Your task to perform on an android device: Do I have any events this weekend? Image 0: 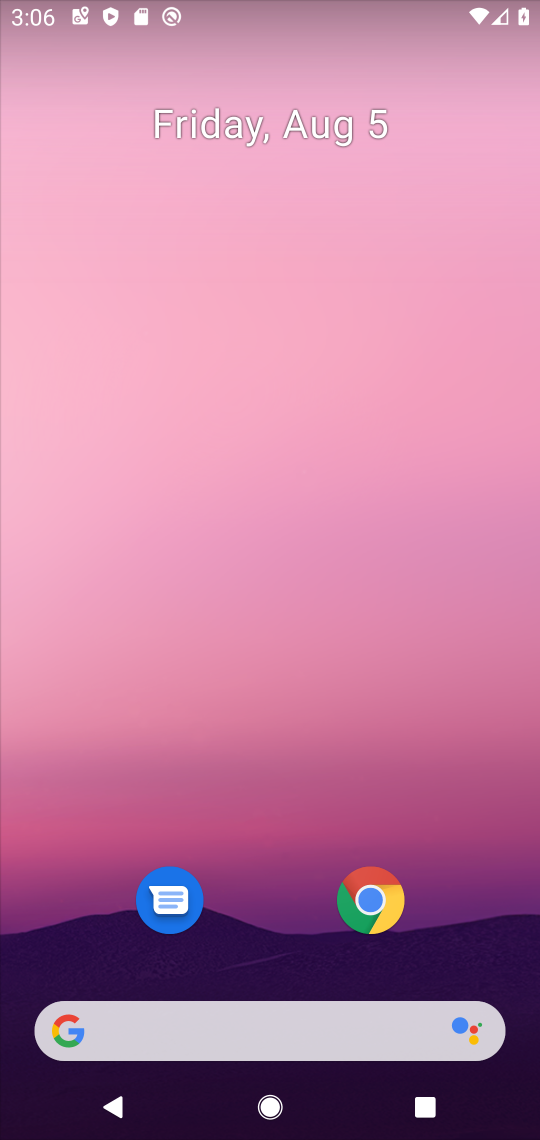
Step 0: drag from (270, 778) to (327, 99)
Your task to perform on an android device: Do I have any events this weekend? Image 1: 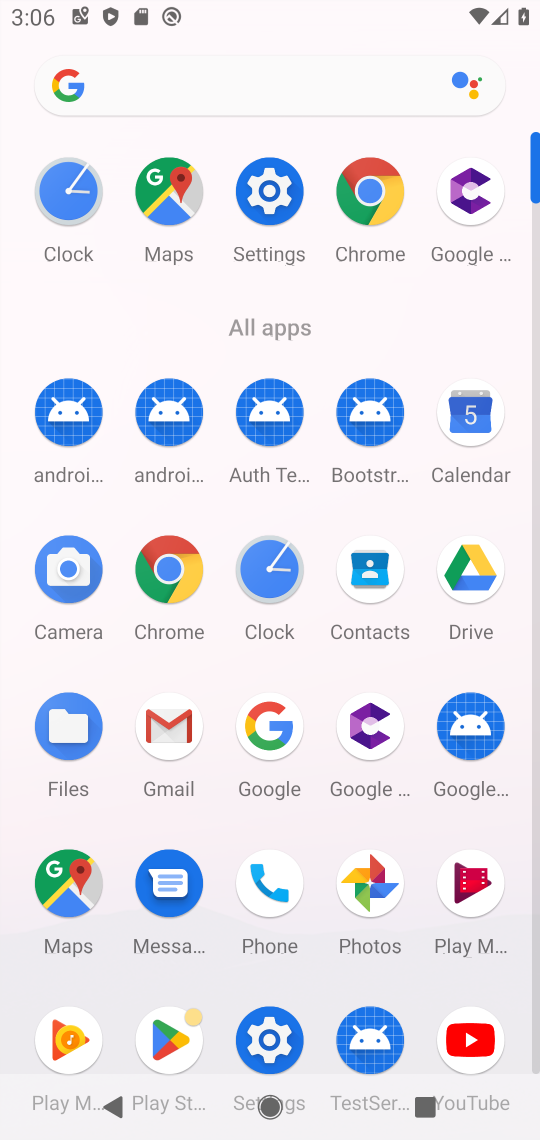
Step 1: click (493, 418)
Your task to perform on an android device: Do I have any events this weekend? Image 2: 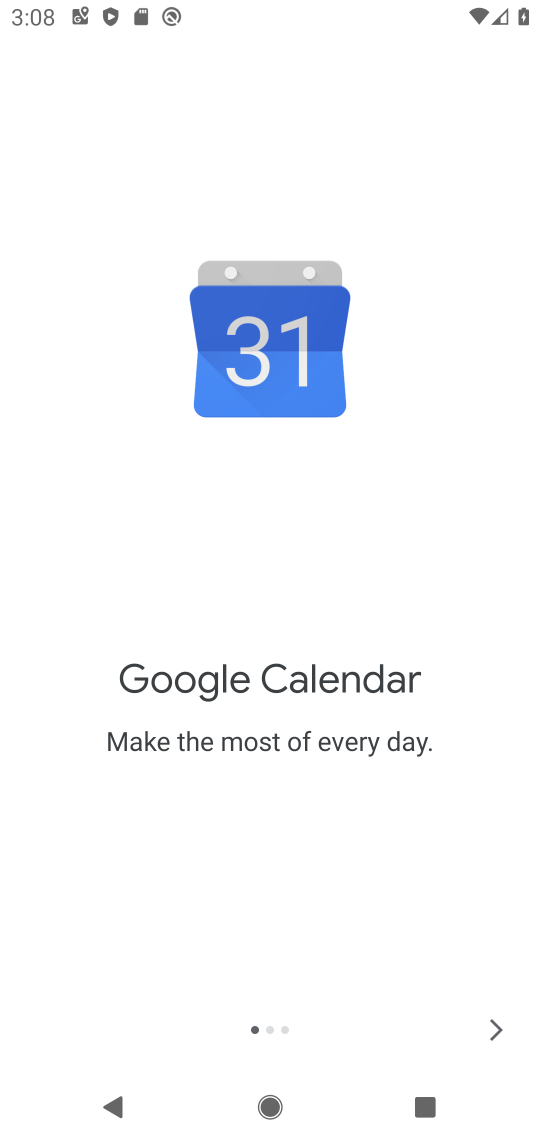
Step 2: press back button
Your task to perform on an android device: Do I have any events this weekend? Image 3: 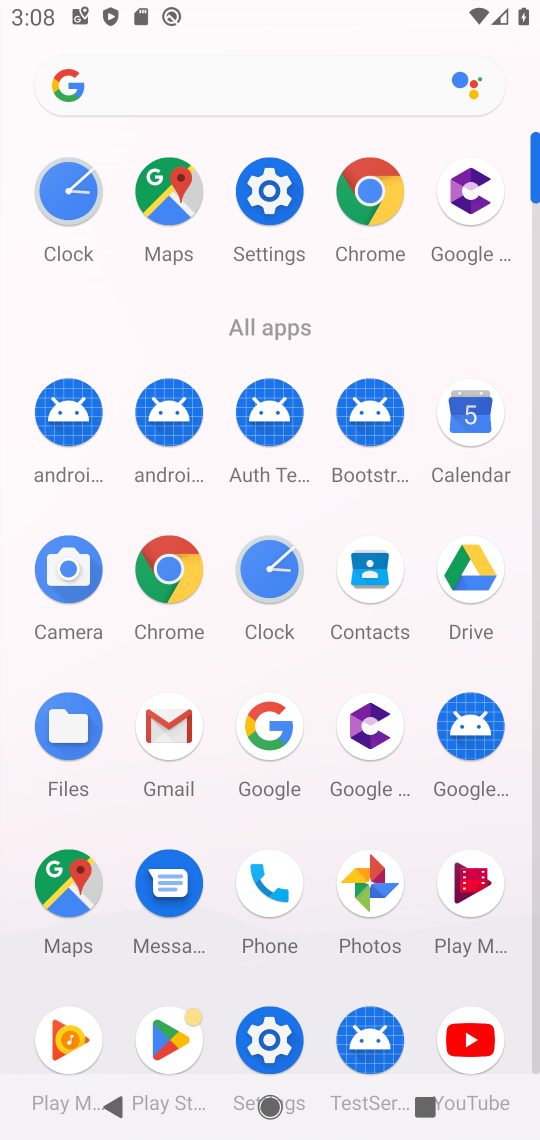
Step 3: press back button
Your task to perform on an android device: Do I have any events this weekend? Image 4: 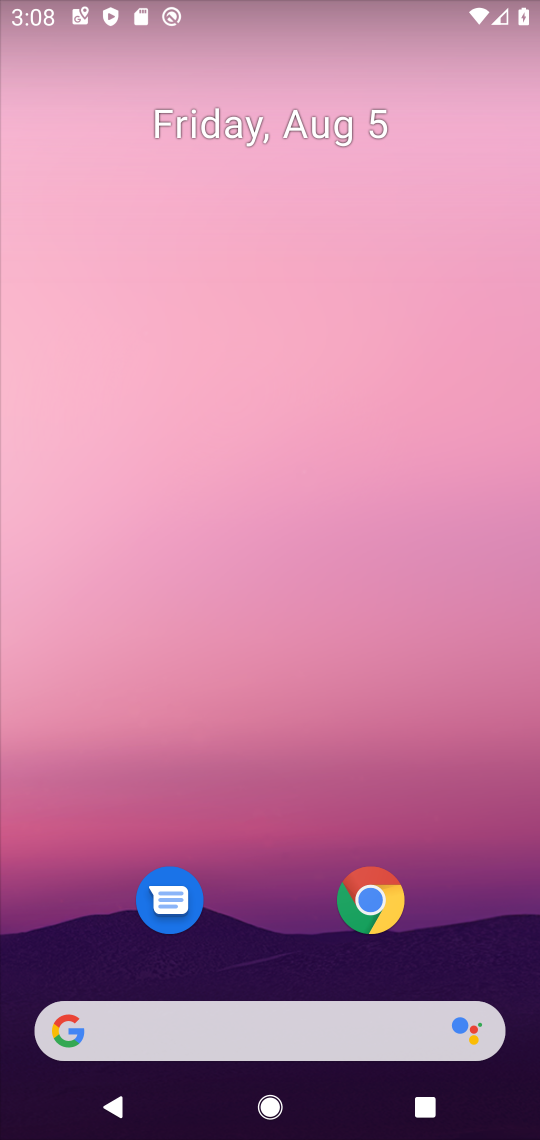
Step 4: drag from (288, 856) to (360, 139)
Your task to perform on an android device: Do I have any events this weekend? Image 5: 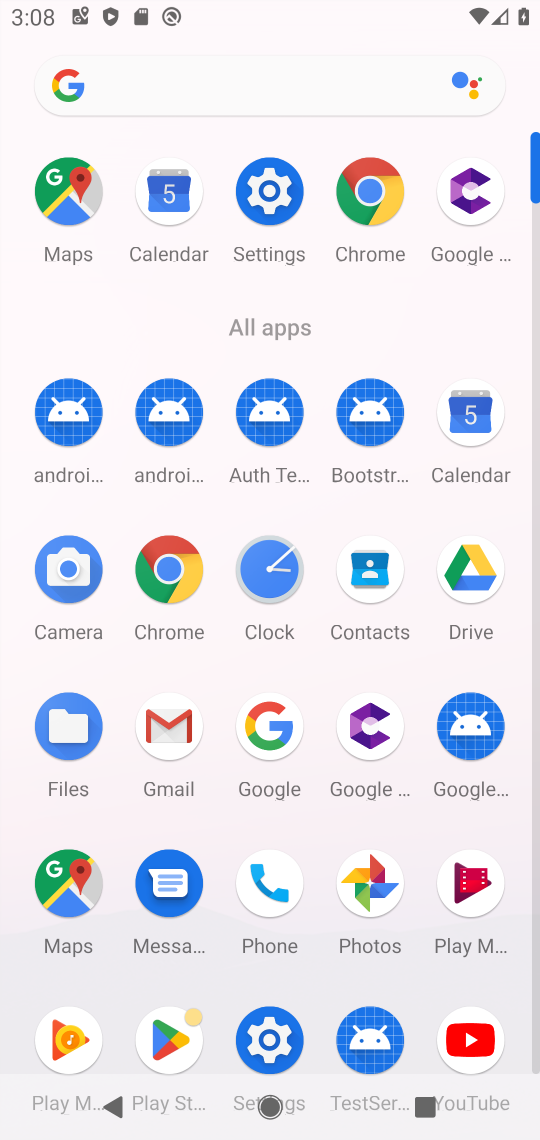
Step 5: click (467, 408)
Your task to perform on an android device: Do I have any events this weekend? Image 6: 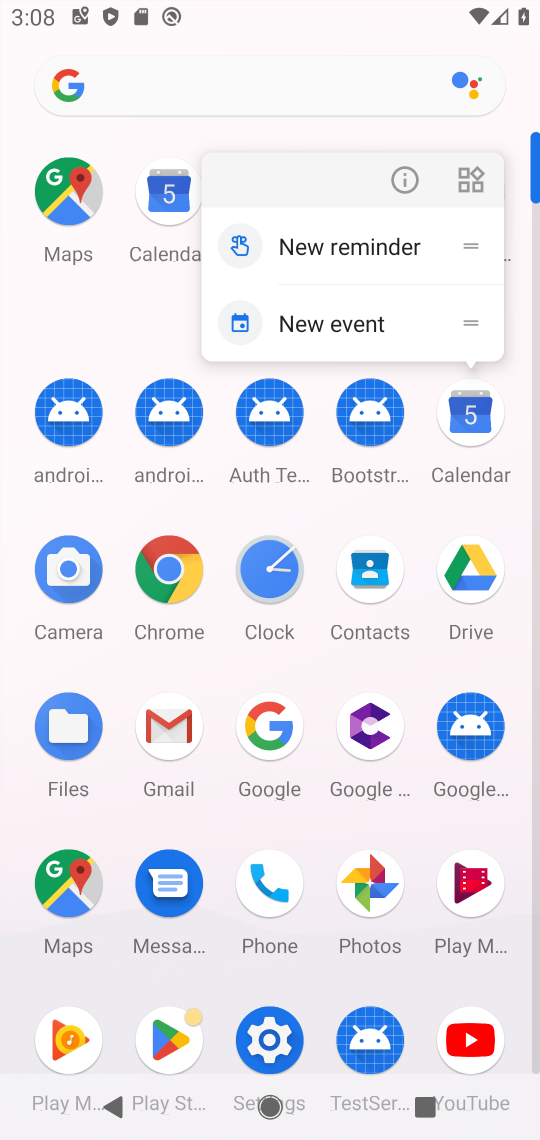
Step 6: click (488, 416)
Your task to perform on an android device: Do I have any events this weekend? Image 7: 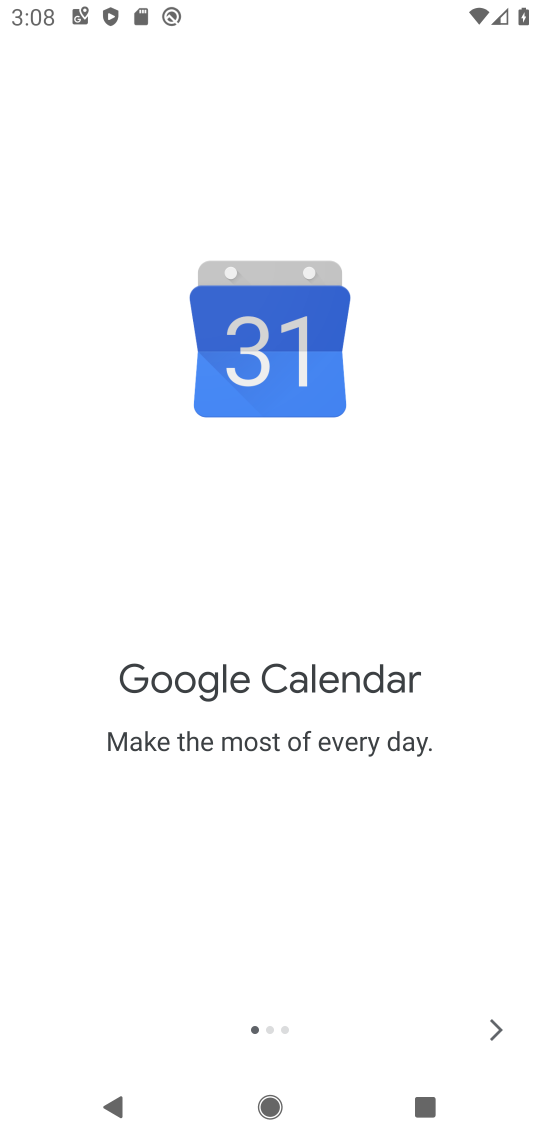
Step 7: click (518, 1006)
Your task to perform on an android device: Do I have any events this weekend? Image 8: 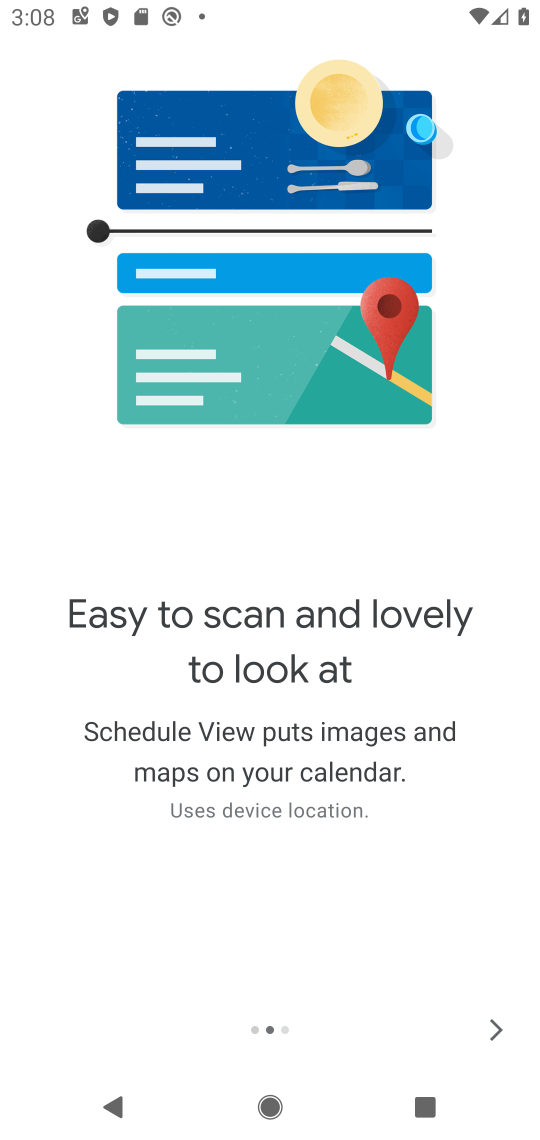
Step 8: click (509, 1008)
Your task to perform on an android device: Do I have any events this weekend? Image 9: 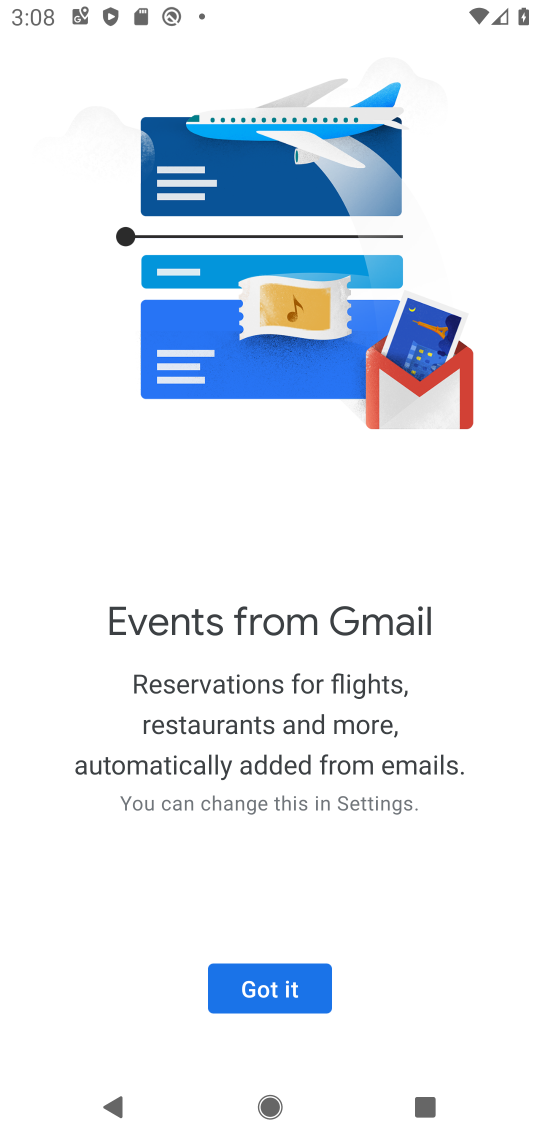
Step 9: click (264, 988)
Your task to perform on an android device: Do I have any events this weekend? Image 10: 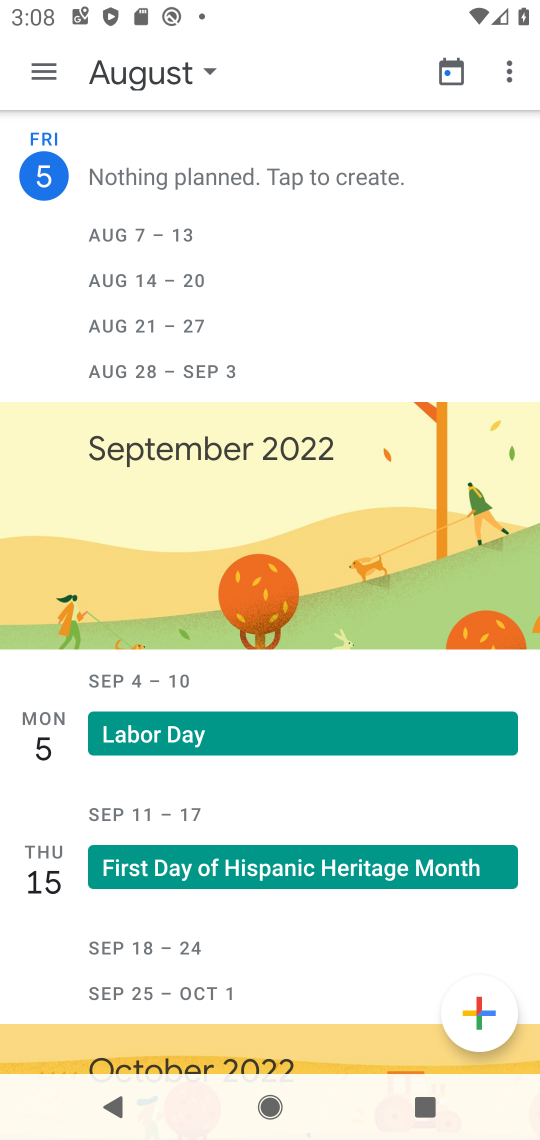
Step 10: click (176, 54)
Your task to perform on an android device: Do I have any events this weekend? Image 11: 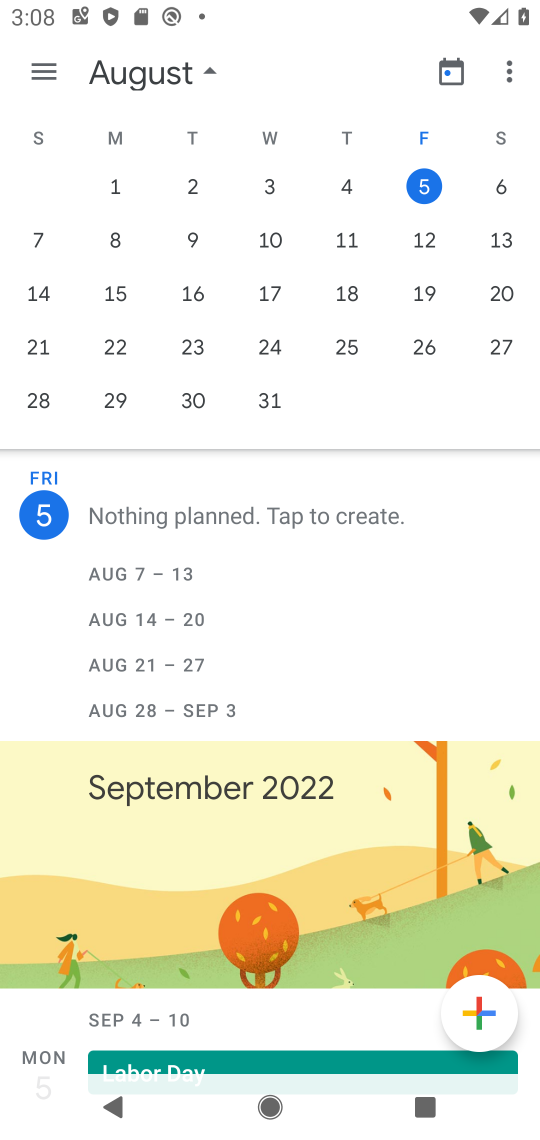
Step 11: click (507, 187)
Your task to perform on an android device: Do I have any events this weekend? Image 12: 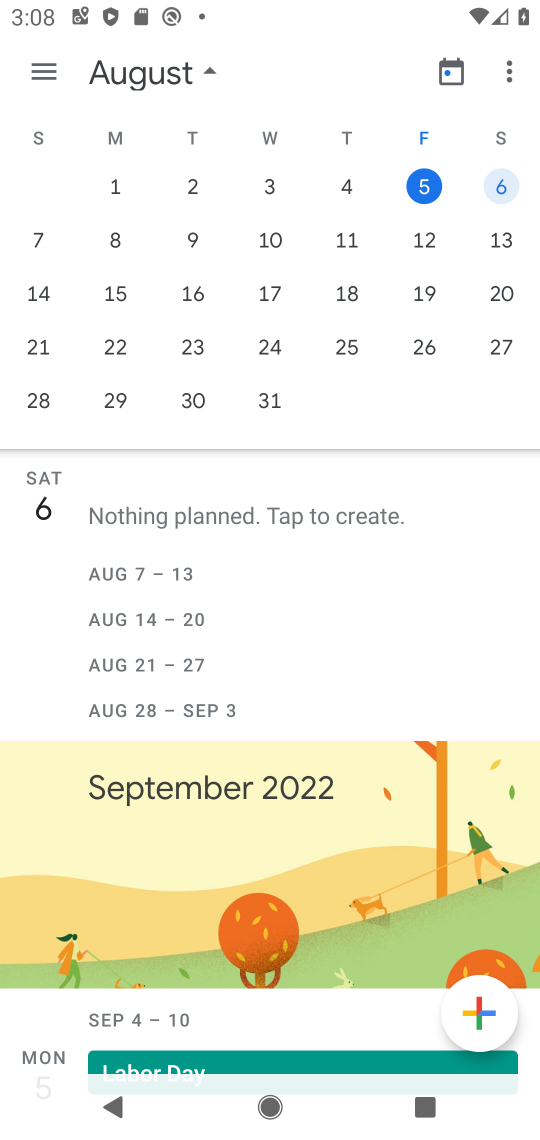
Step 12: task complete